Your task to perform on an android device: toggle show notifications on the lock screen Image 0: 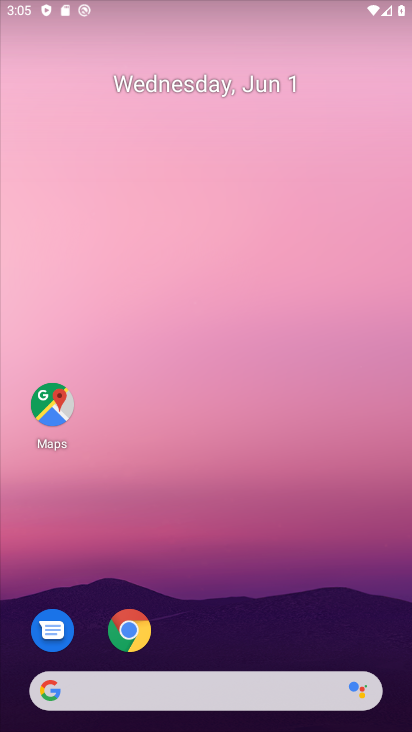
Step 0: drag from (246, 489) to (316, 107)
Your task to perform on an android device: toggle show notifications on the lock screen Image 1: 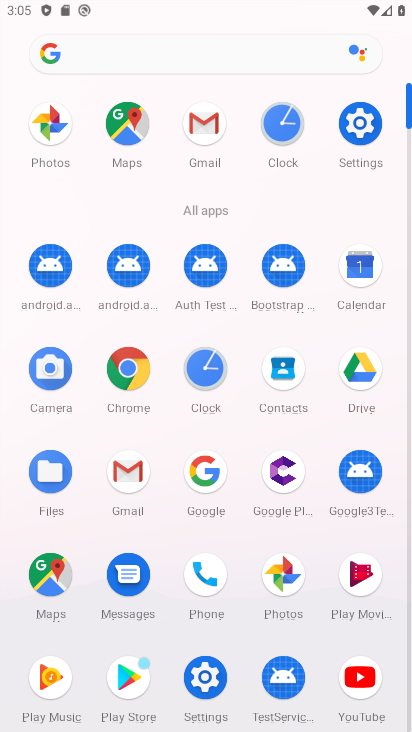
Step 1: drag from (146, 660) to (217, 391)
Your task to perform on an android device: toggle show notifications on the lock screen Image 2: 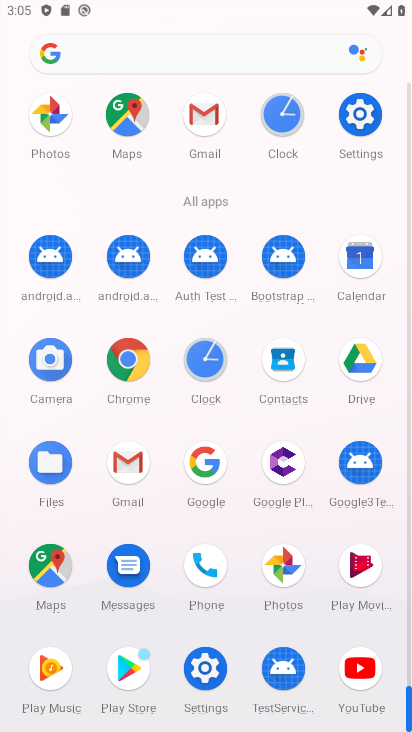
Step 2: click (206, 664)
Your task to perform on an android device: toggle show notifications on the lock screen Image 3: 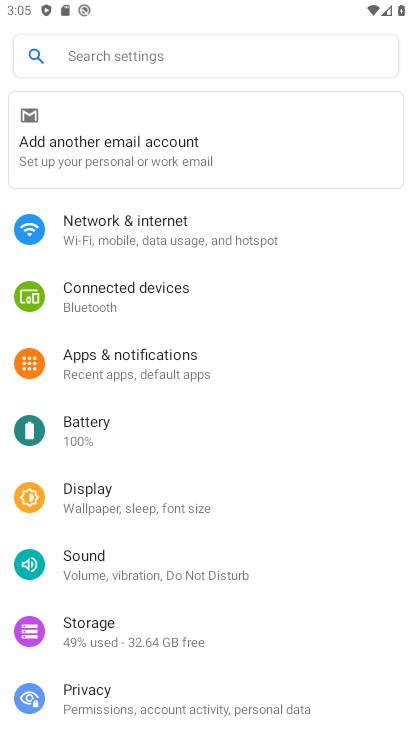
Step 3: click (210, 369)
Your task to perform on an android device: toggle show notifications on the lock screen Image 4: 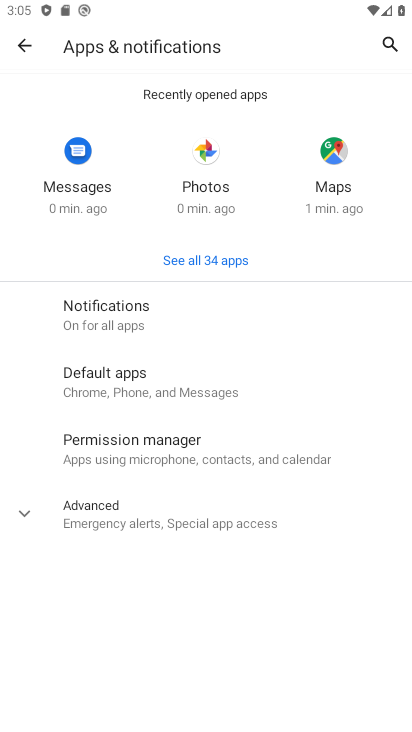
Step 4: click (271, 343)
Your task to perform on an android device: toggle show notifications on the lock screen Image 5: 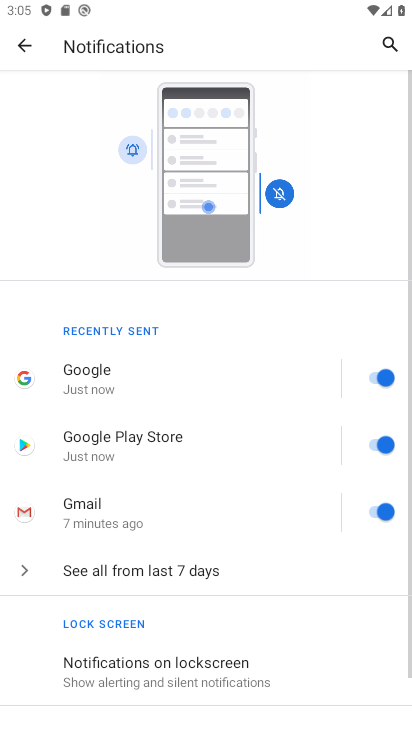
Step 5: drag from (272, 663) to (339, 336)
Your task to perform on an android device: toggle show notifications on the lock screen Image 6: 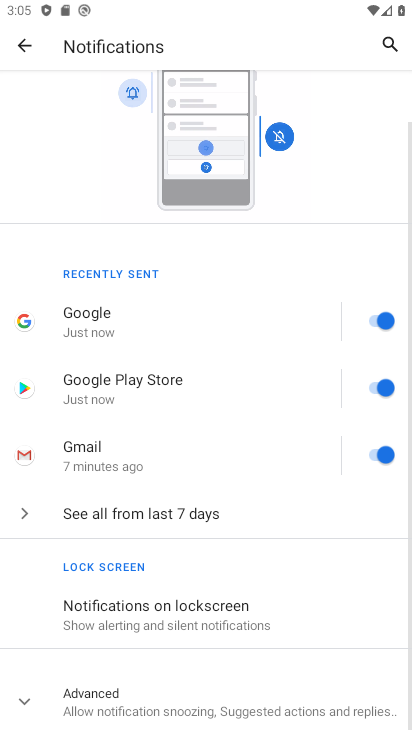
Step 6: click (239, 633)
Your task to perform on an android device: toggle show notifications on the lock screen Image 7: 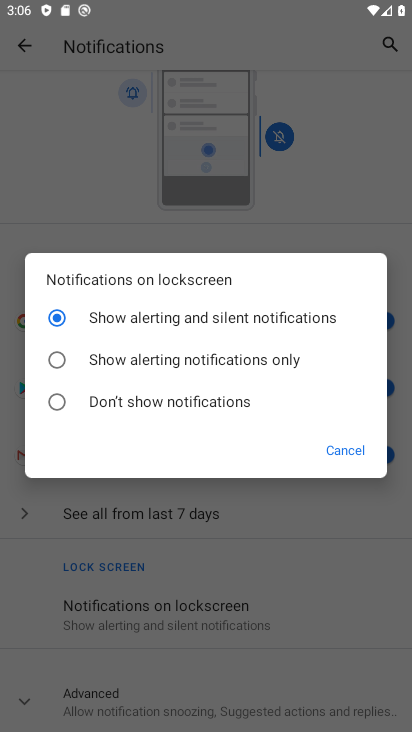
Step 7: task complete